Your task to perform on an android device: move a message to another label in the gmail app Image 0: 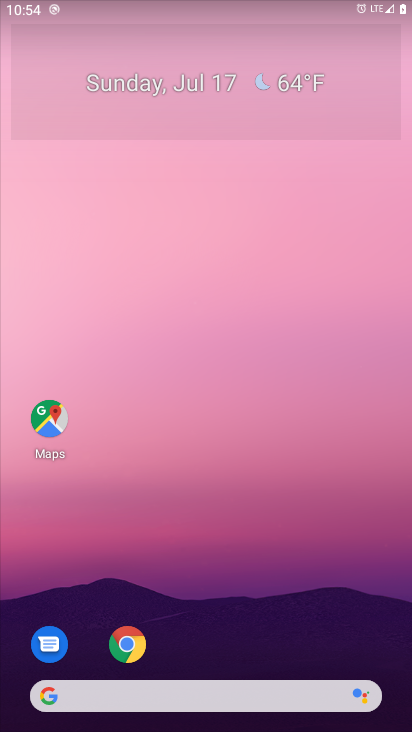
Step 0: press home button
Your task to perform on an android device: move a message to another label in the gmail app Image 1: 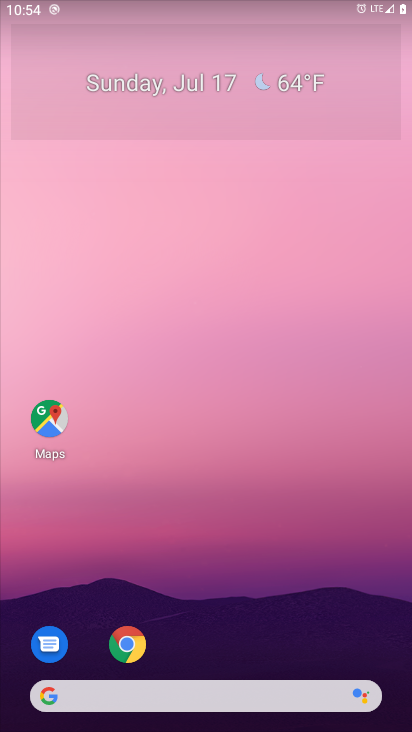
Step 1: drag from (316, 596) to (341, 147)
Your task to perform on an android device: move a message to another label in the gmail app Image 2: 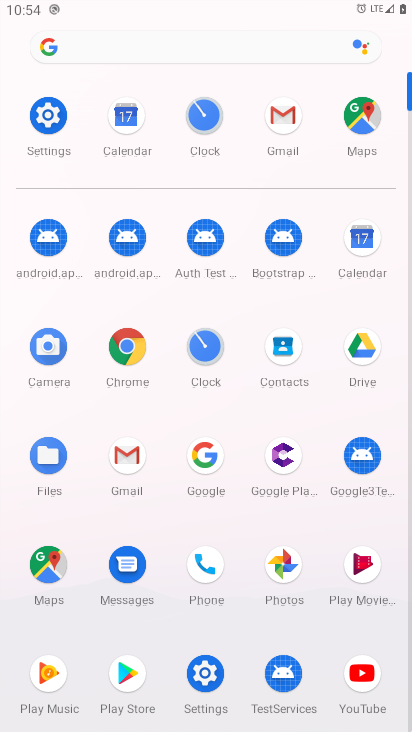
Step 2: click (281, 122)
Your task to perform on an android device: move a message to another label in the gmail app Image 3: 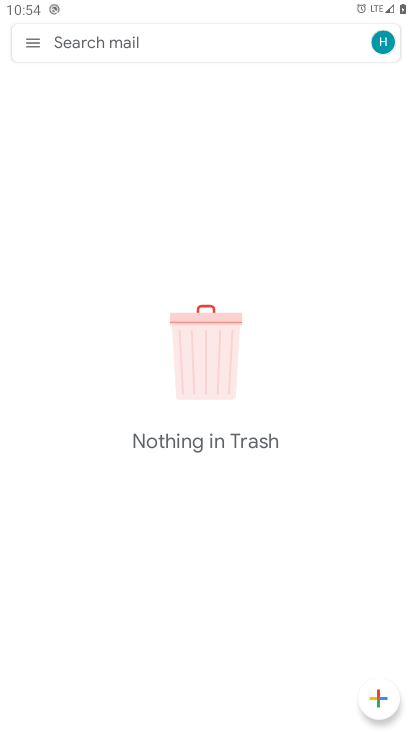
Step 3: click (26, 36)
Your task to perform on an android device: move a message to another label in the gmail app Image 4: 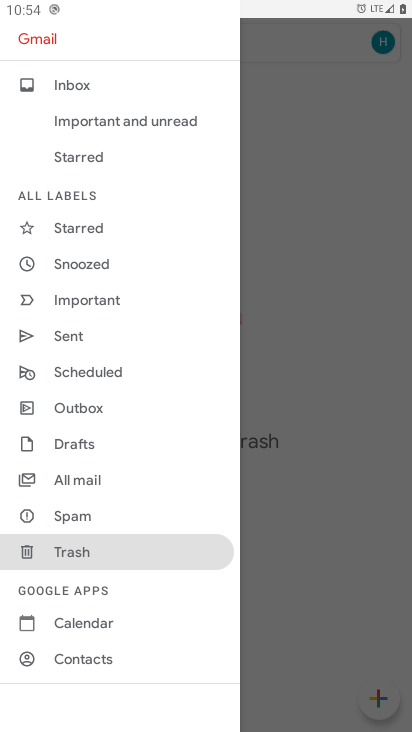
Step 4: click (73, 481)
Your task to perform on an android device: move a message to another label in the gmail app Image 5: 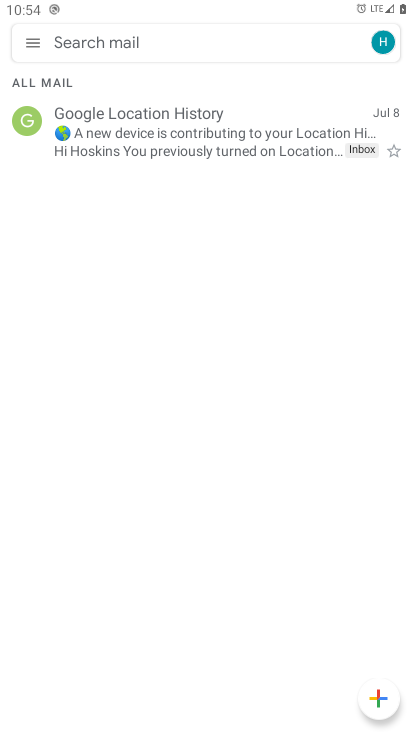
Step 5: click (163, 130)
Your task to perform on an android device: move a message to another label in the gmail app Image 6: 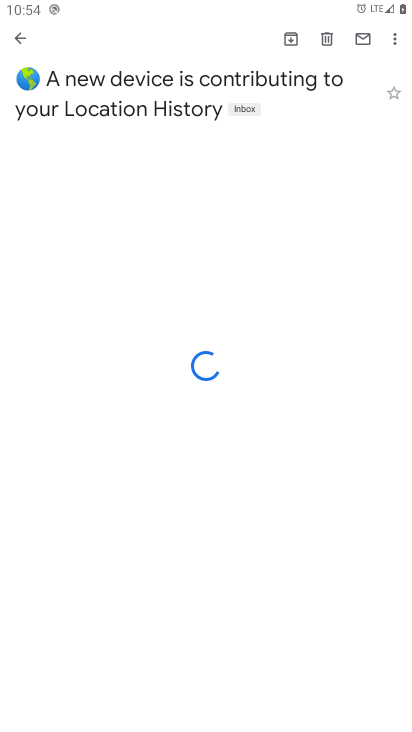
Step 6: click (397, 36)
Your task to perform on an android device: move a message to another label in the gmail app Image 7: 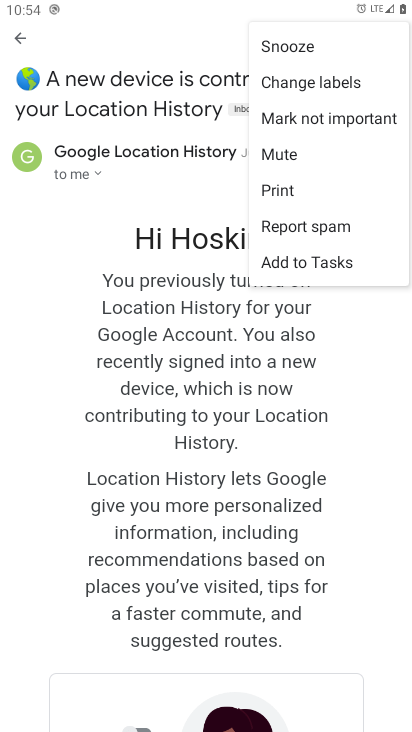
Step 7: click (286, 77)
Your task to perform on an android device: move a message to another label in the gmail app Image 8: 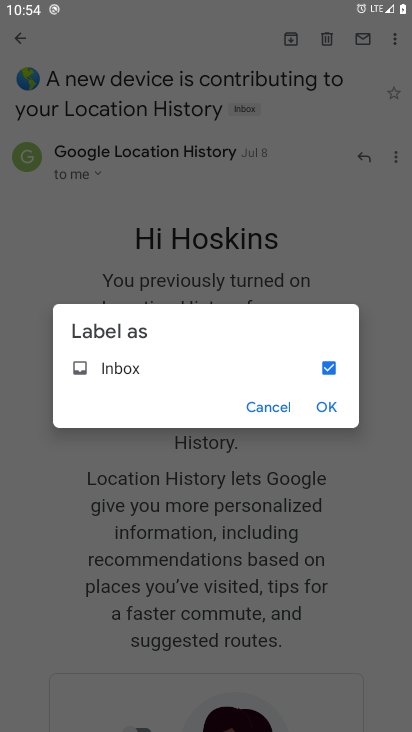
Step 8: click (322, 401)
Your task to perform on an android device: move a message to another label in the gmail app Image 9: 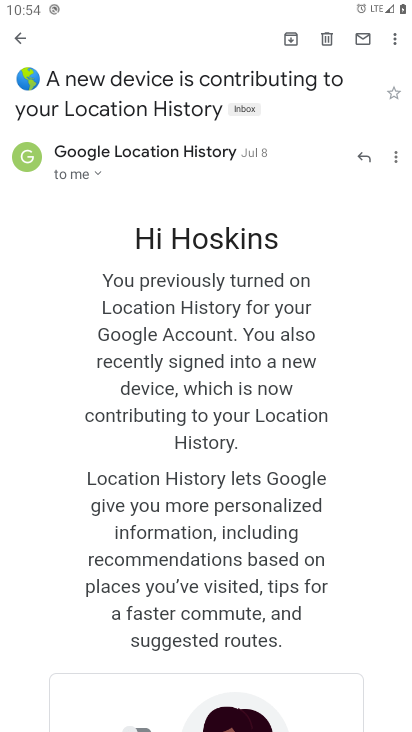
Step 9: task complete